Your task to perform on an android device: turn off translation in the chrome app Image 0: 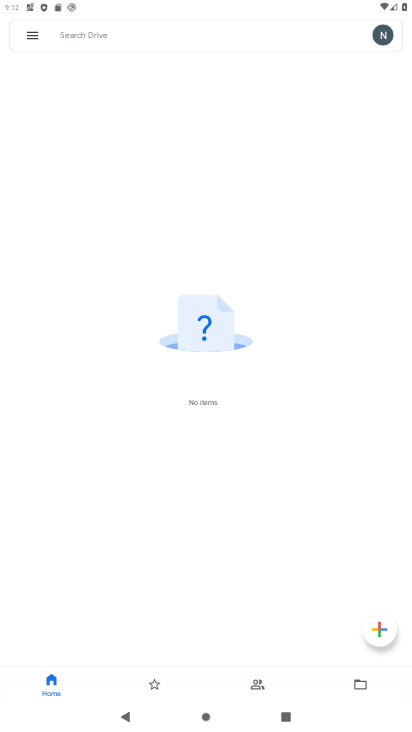
Step 0: press home button
Your task to perform on an android device: turn off translation in the chrome app Image 1: 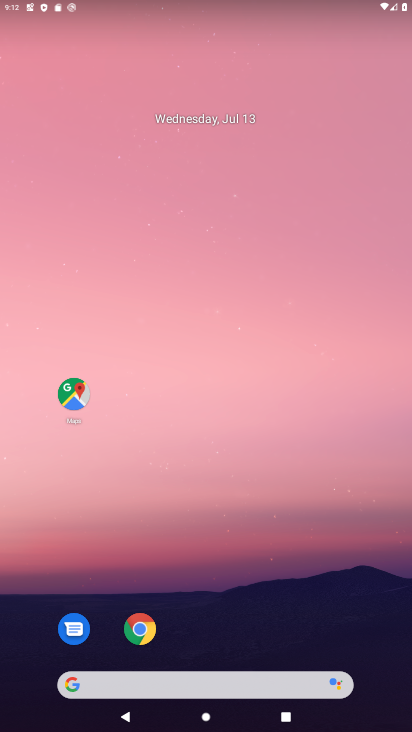
Step 1: click (150, 633)
Your task to perform on an android device: turn off translation in the chrome app Image 2: 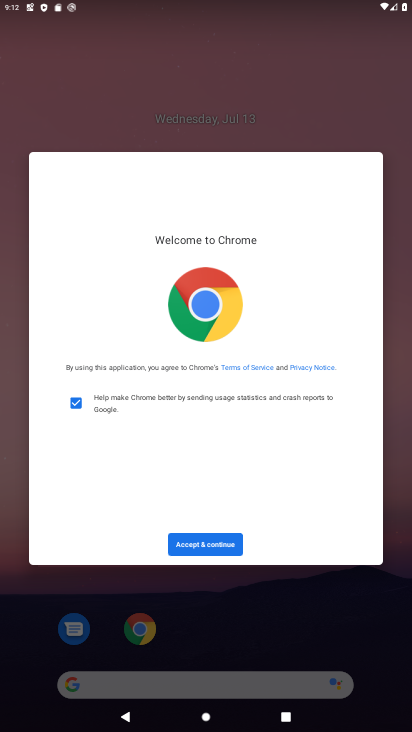
Step 2: click (204, 546)
Your task to perform on an android device: turn off translation in the chrome app Image 3: 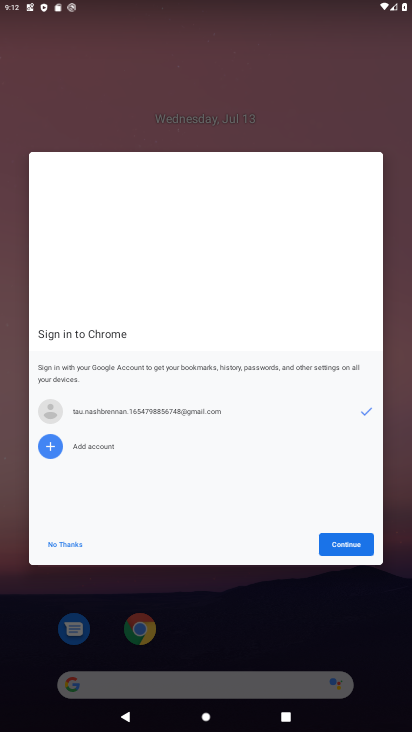
Step 3: click (334, 541)
Your task to perform on an android device: turn off translation in the chrome app Image 4: 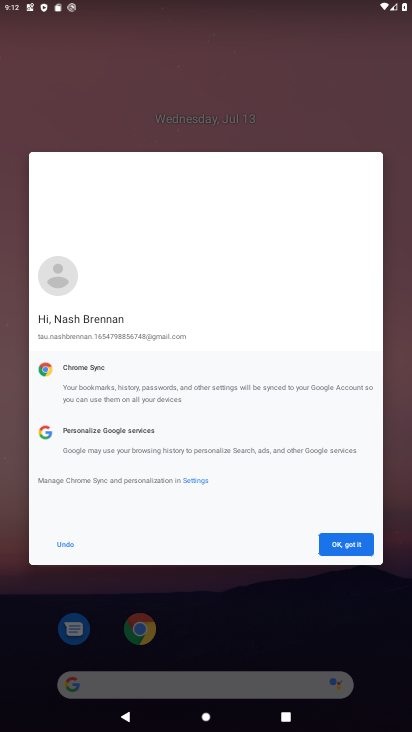
Step 4: click (334, 541)
Your task to perform on an android device: turn off translation in the chrome app Image 5: 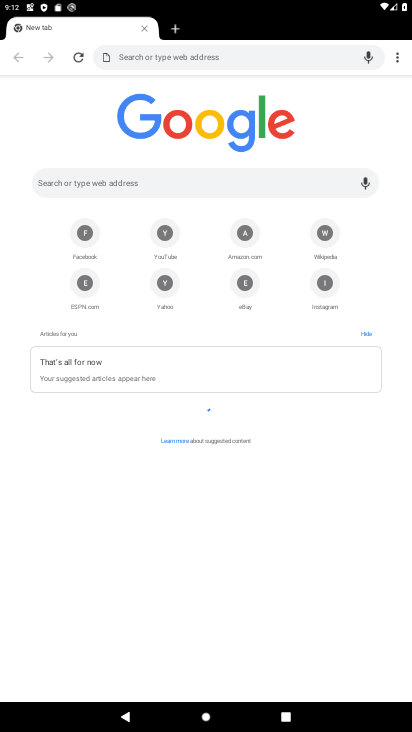
Step 5: click (395, 58)
Your task to perform on an android device: turn off translation in the chrome app Image 6: 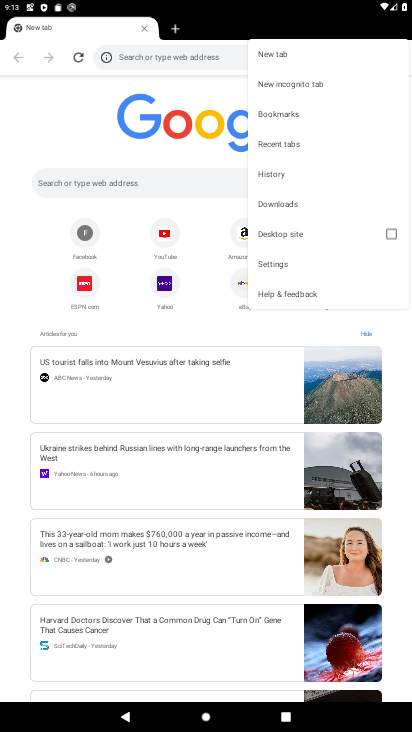
Step 6: click (296, 259)
Your task to perform on an android device: turn off translation in the chrome app Image 7: 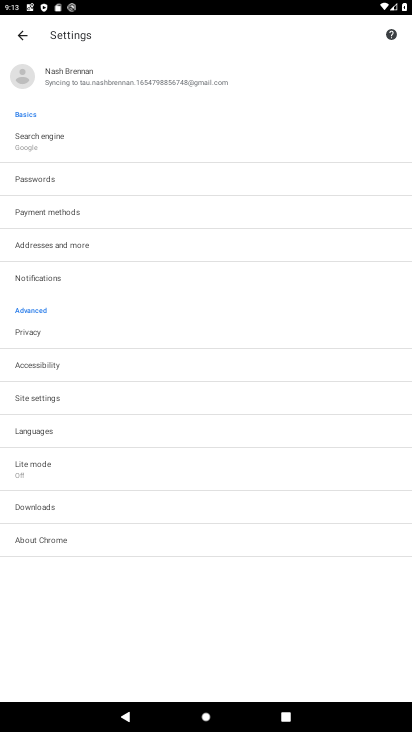
Step 7: click (45, 424)
Your task to perform on an android device: turn off translation in the chrome app Image 8: 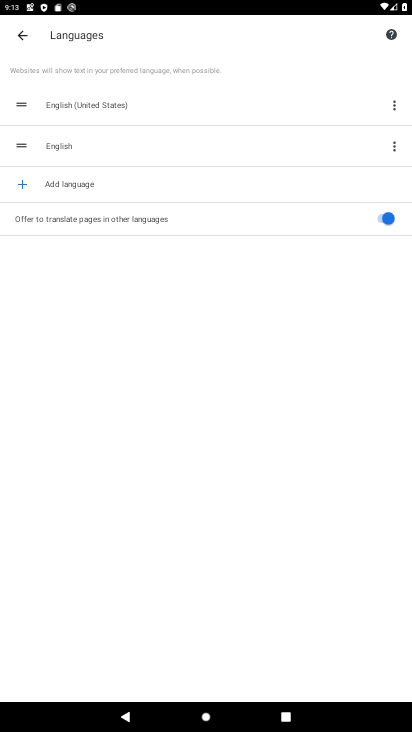
Step 8: click (384, 222)
Your task to perform on an android device: turn off translation in the chrome app Image 9: 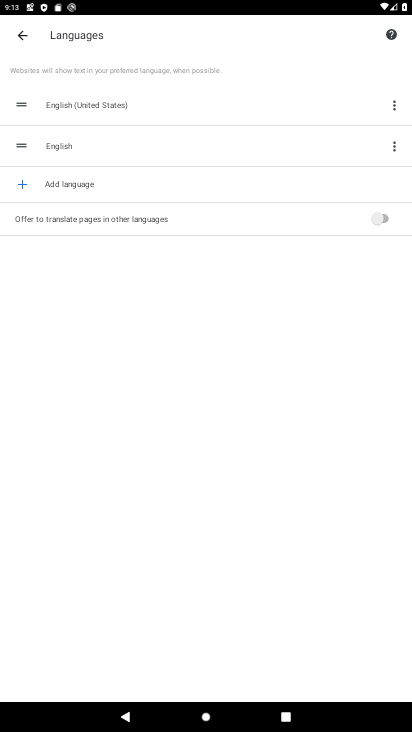
Step 9: task complete